Your task to perform on an android device: toggle translation in the chrome app Image 0: 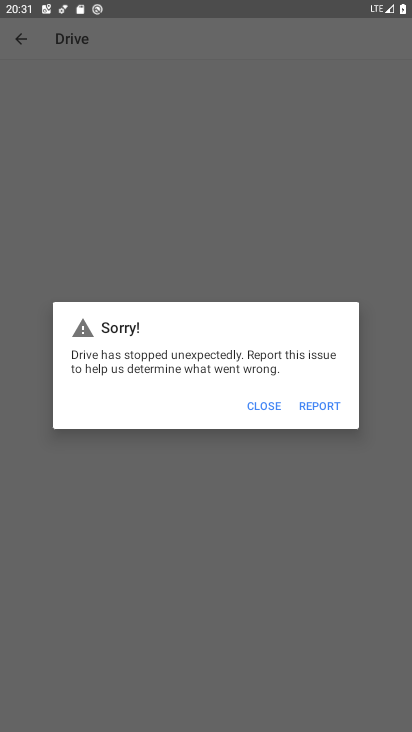
Step 0: press home button
Your task to perform on an android device: toggle translation in the chrome app Image 1: 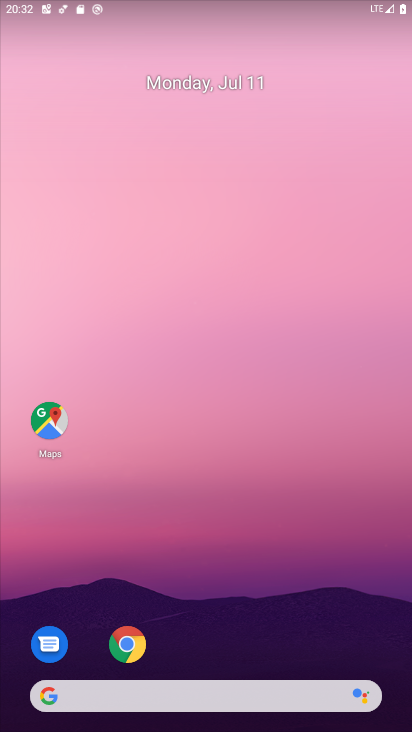
Step 1: drag from (228, 660) to (231, 500)
Your task to perform on an android device: toggle translation in the chrome app Image 2: 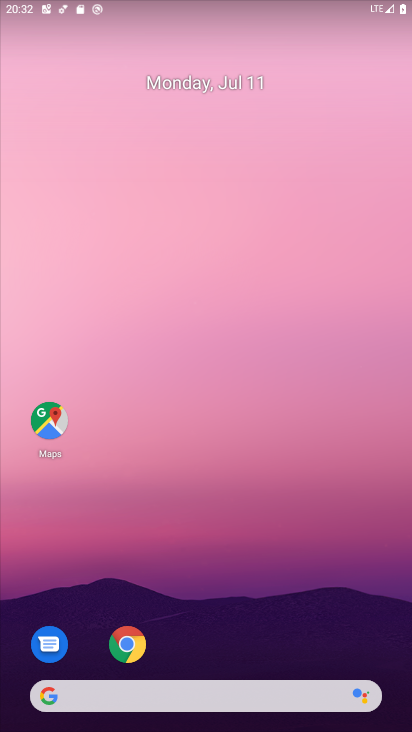
Step 2: drag from (207, 575) to (220, 242)
Your task to perform on an android device: toggle translation in the chrome app Image 3: 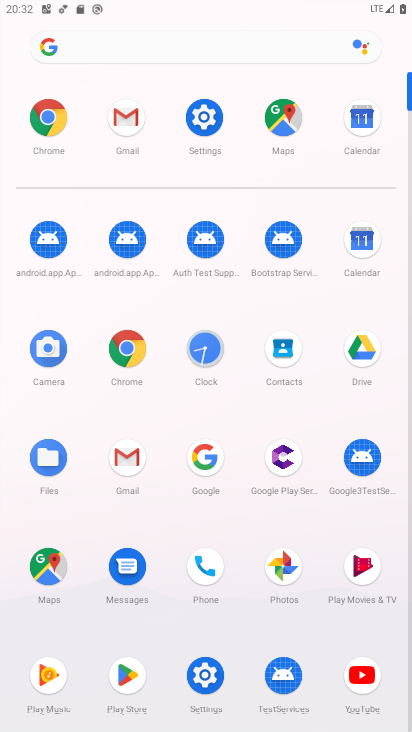
Step 3: click (124, 337)
Your task to perform on an android device: toggle translation in the chrome app Image 4: 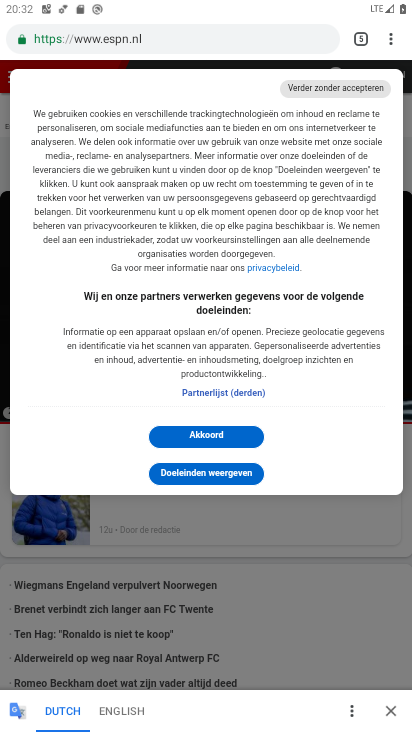
Step 4: click (394, 39)
Your task to perform on an android device: toggle translation in the chrome app Image 5: 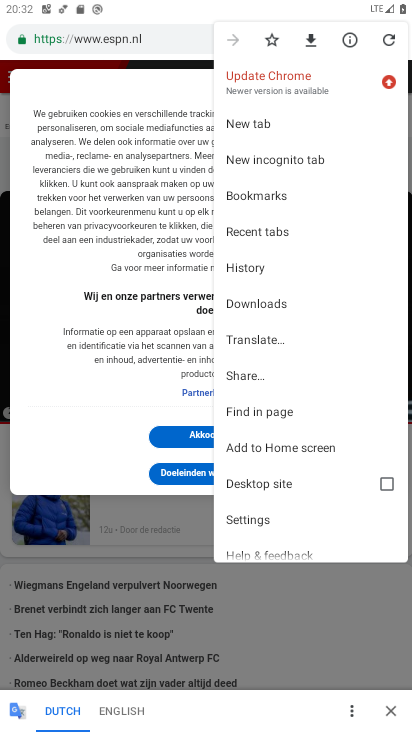
Step 5: click (254, 516)
Your task to perform on an android device: toggle translation in the chrome app Image 6: 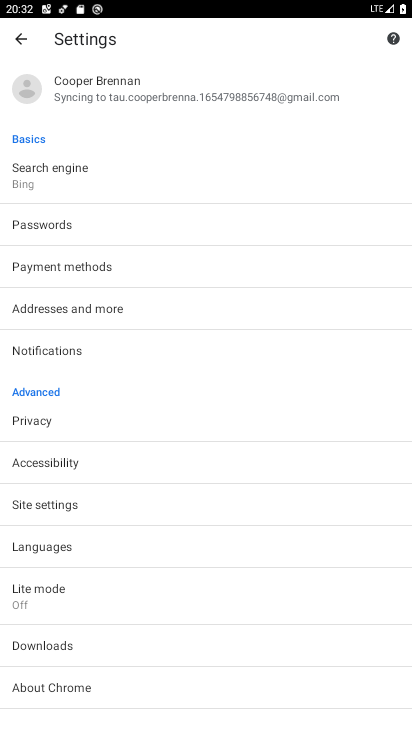
Step 6: click (73, 547)
Your task to perform on an android device: toggle translation in the chrome app Image 7: 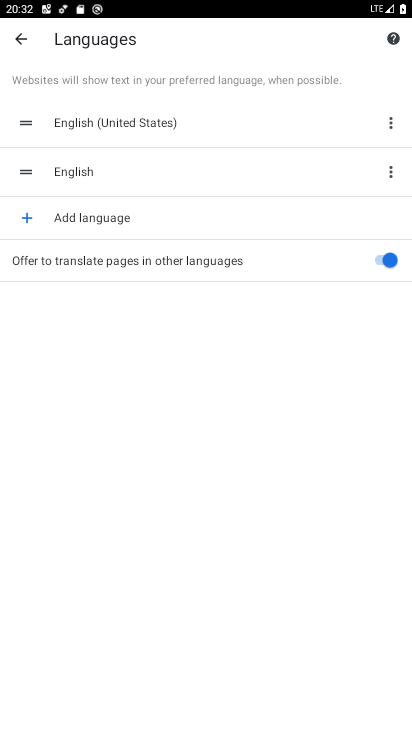
Step 7: click (372, 261)
Your task to perform on an android device: toggle translation in the chrome app Image 8: 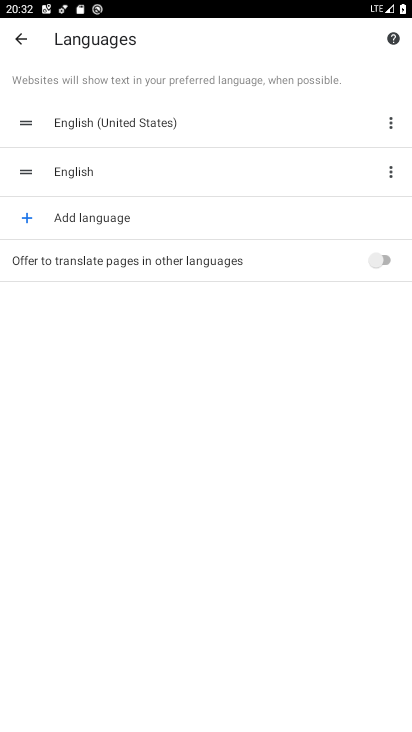
Step 8: task complete